Your task to perform on an android device: check battery use Image 0: 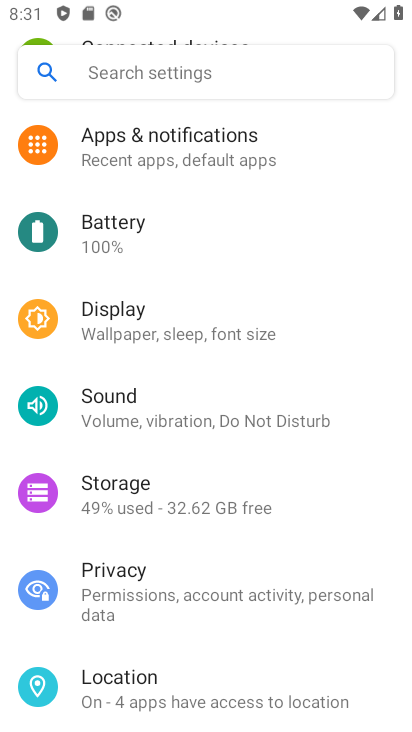
Step 0: click (146, 238)
Your task to perform on an android device: check battery use Image 1: 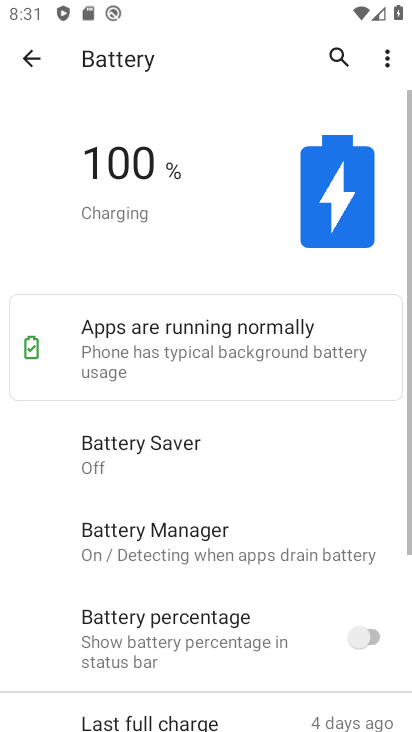
Step 1: click (388, 63)
Your task to perform on an android device: check battery use Image 2: 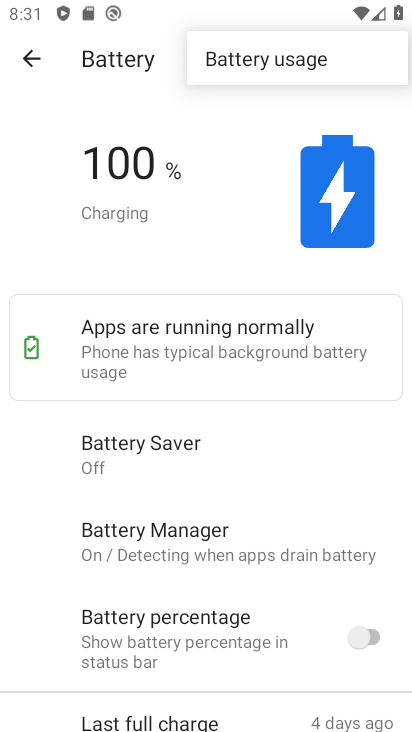
Step 2: click (335, 74)
Your task to perform on an android device: check battery use Image 3: 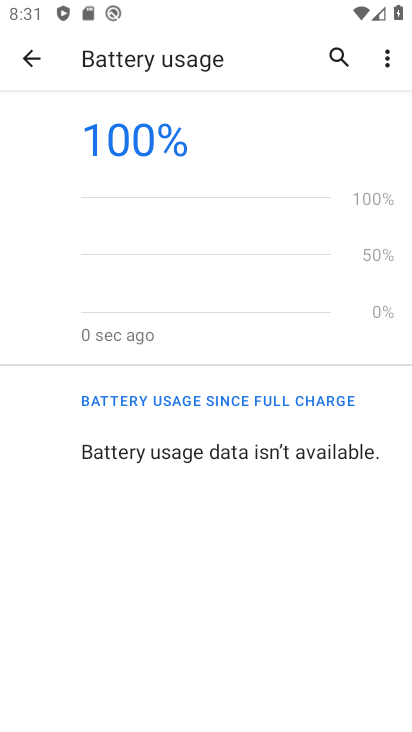
Step 3: task complete